Your task to perform on an android device: toggle sleep mode Image 0: 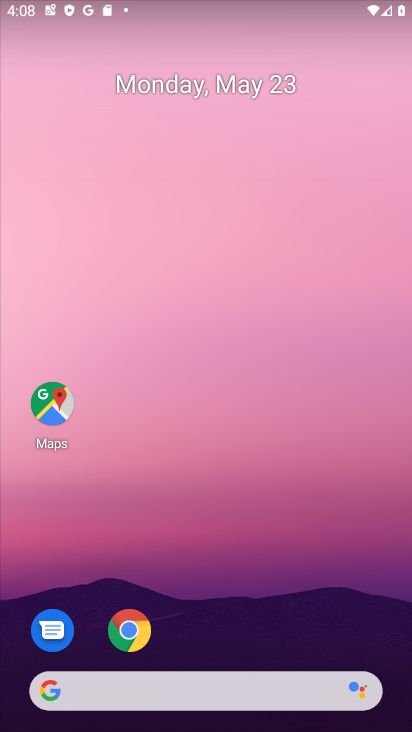
Step 0: press home button
Your task to perform on an android device: toggle sleep mode Image 1: 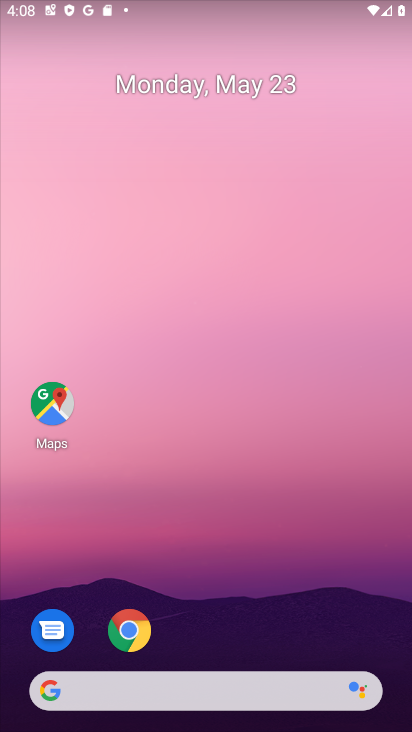
Step 1: drag from (219, 650) to (229, 63)
Your task to perform on an android device: toggle sleep mode Image 2: 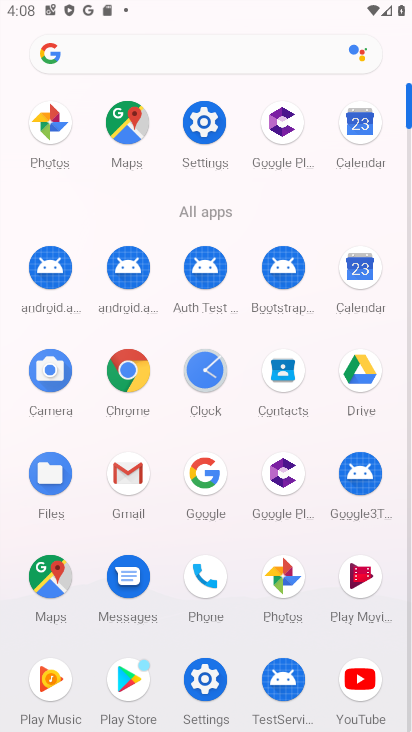
Step 2: click (201, 115)
Your task to perform on an android device: toggle sleep mode Image 3: 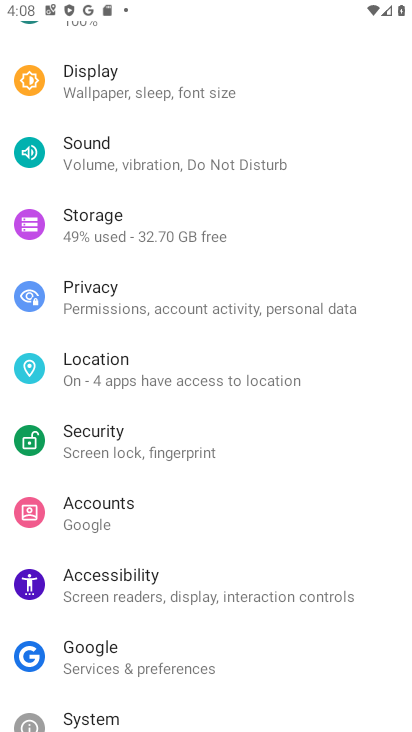
Step 3: click (133, 75)
Your task to perform on an android device: toggle sleep mode Image 4: 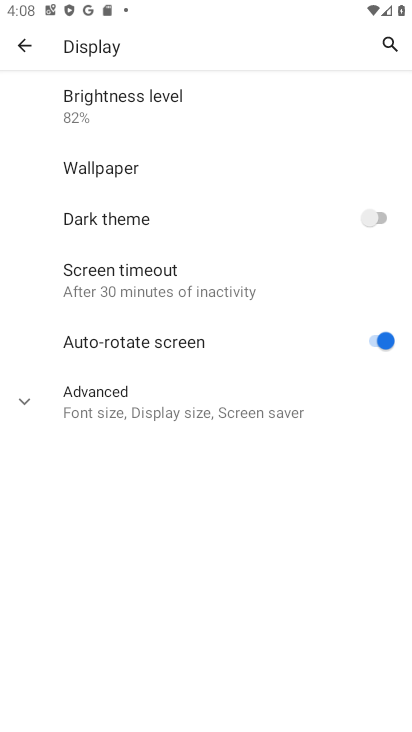
Step 4: click (22, 396)
Your task to perform on an android device: toggle sleep mode Image 5: 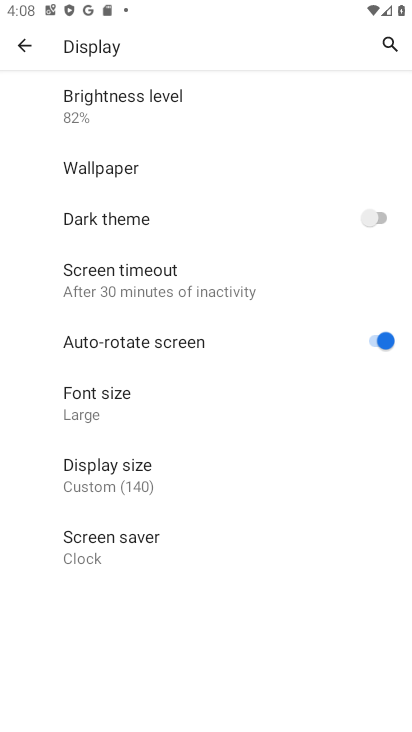
Step 5: task complete